Your task to perform on an android device: Open the stopwatch Image 0: 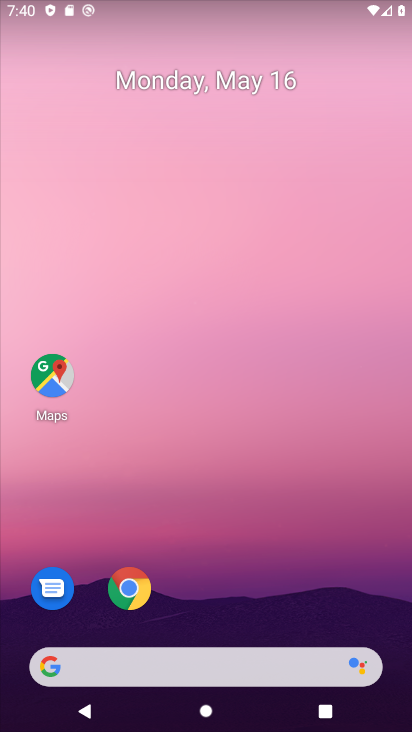
Step 0: drag from (340, 587) to (362, 82)
Your task to perform on an android device: Open the stopwatch Image 1: 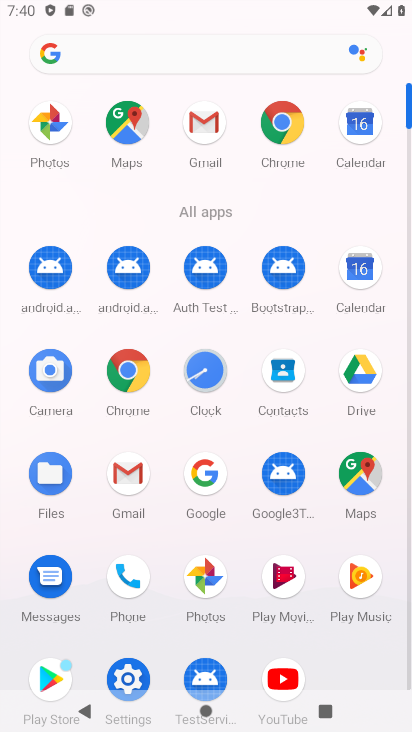
Step 1: click (198, 377)
Your task to perform on an android device: Open the stopwatch Image 2: 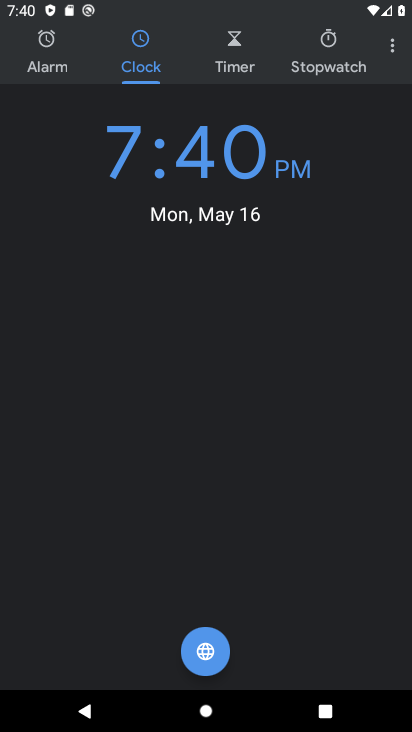
Step 2: click (316, 61)
Your task to perform on an android device: Open the stopwatch Image 3: 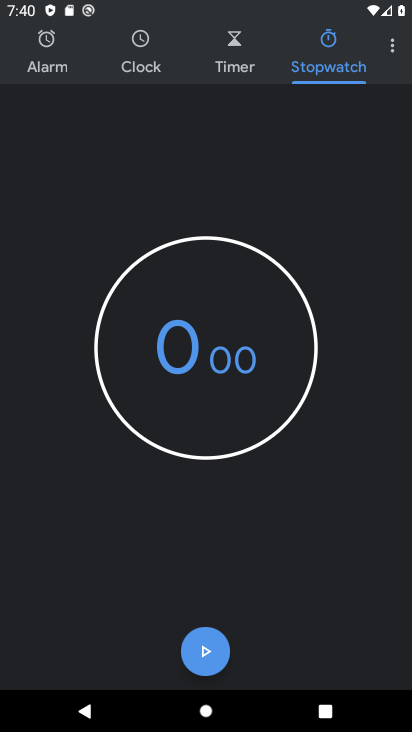
Step 3: task complete